Your task to perform on an android device: Show me the alarms in the clock app Image 0: 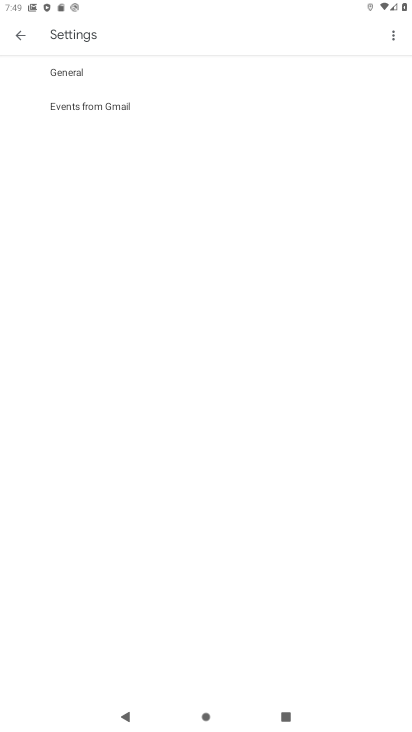
Step 0: press home button
Your task to perform on an android device: Show me the alarms in the clock app Image 1: 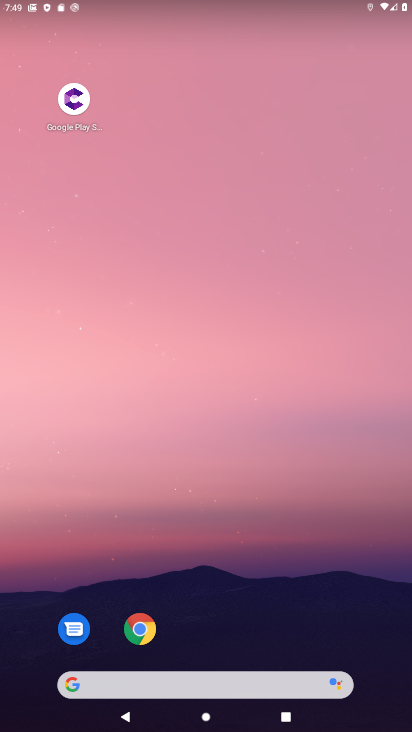
Step 1: click (256, 614)
Your task to perform on an android device: Show me the alarms in the clock app Image 2: 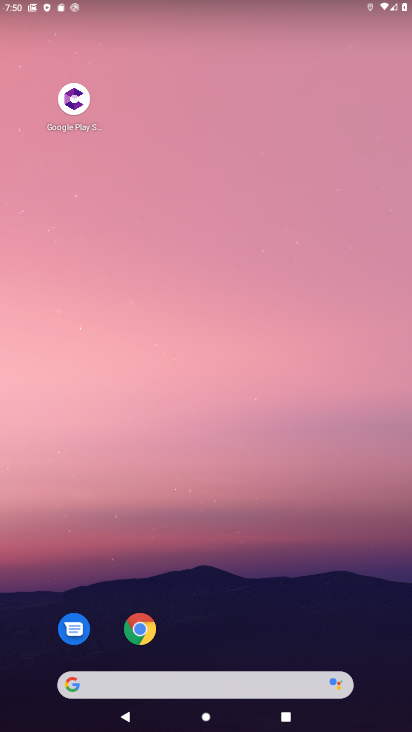
Step 2: drag from (256, 614) to (223, 36)
Your task to perform on an android device: Show me the alarms in the clock app Image 3: 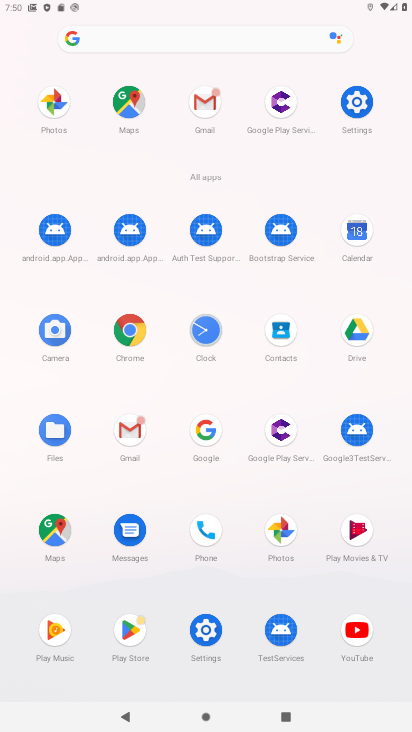
Step 3: click (212, 323)
Your task to perform on an android device: Show me the alarms in the clock app Image 4: 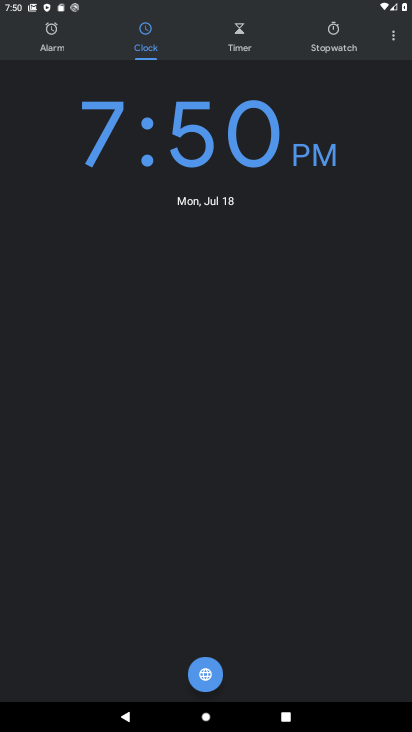
Step 4: click (57, 50)
Your task to perform on an android device: Show me the alarms in the clock app Image 5: 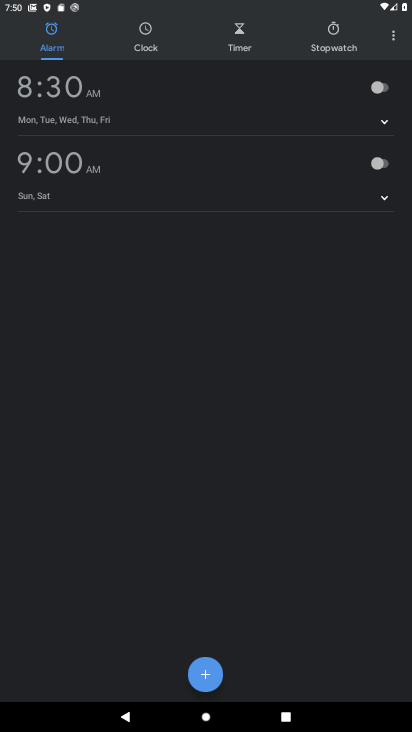
Step 5: task complete